Your task to perform on an android device: change timer sound Image 0: 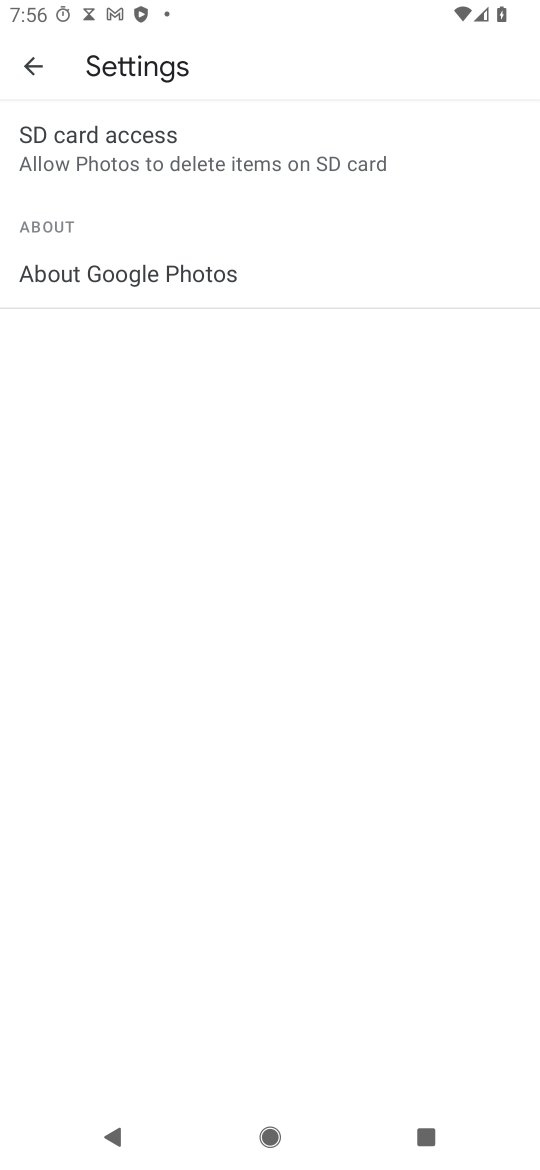
Step 0: press home button
Your task to perform on an android device: change timer sound Image 1: 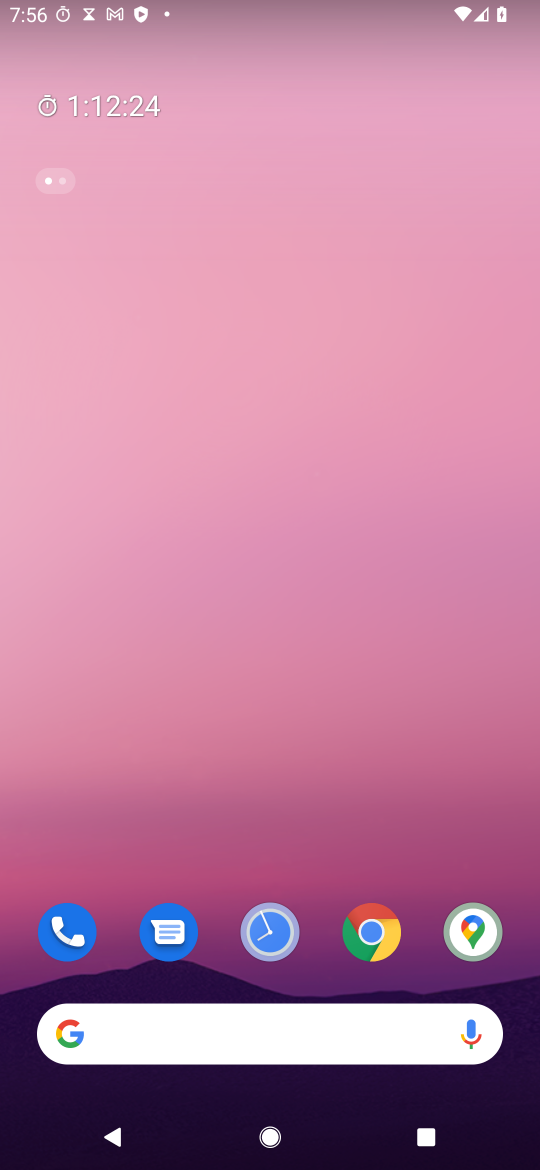
Step 1: drag from (379, 849) to (389, 146)
Your task to perform on an android device: change timer sound Image 2: 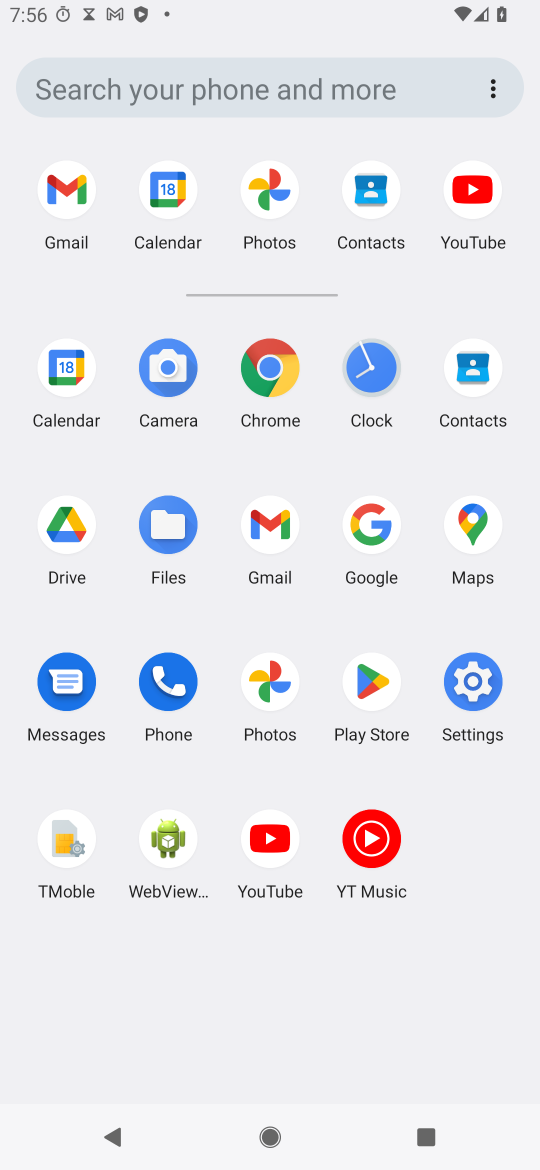
Step 2: click (465, 680)
Your task to perform on an android device: change timer sound Image 3: 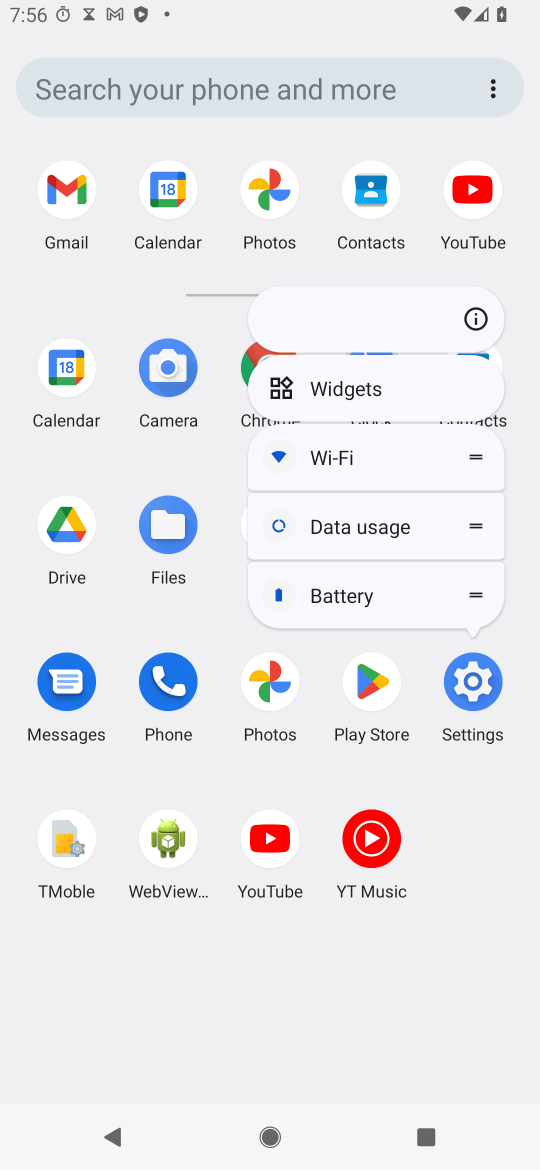
Step 3: click (479, 686)
Your task to perform on an android device: change timer sound Image 4: 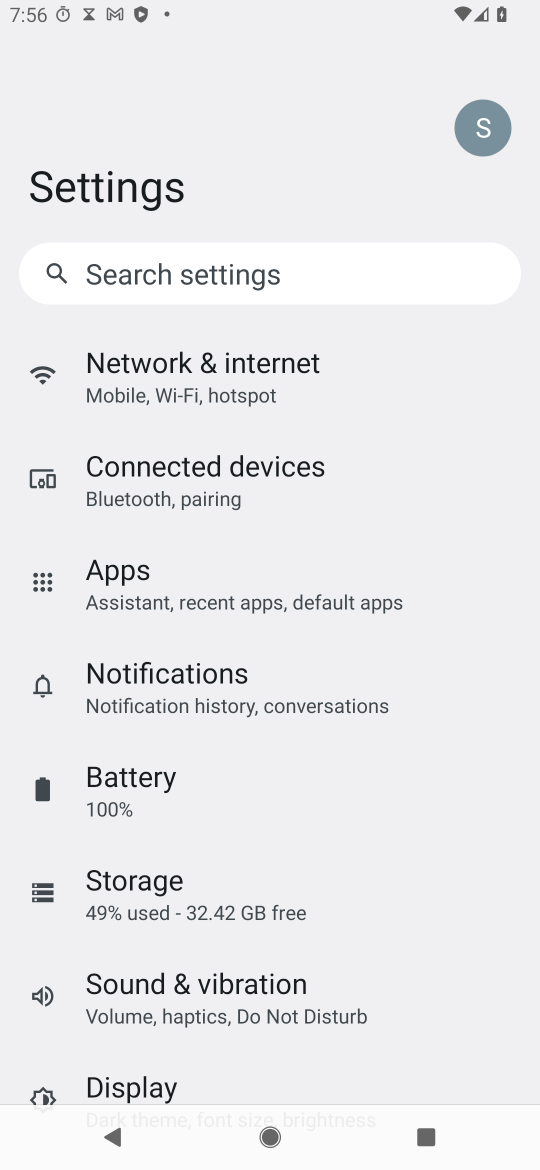
Step 4: drag from (392, 848) to (323, 320)
Your task to perform on an android device: change timer sound Image 5: 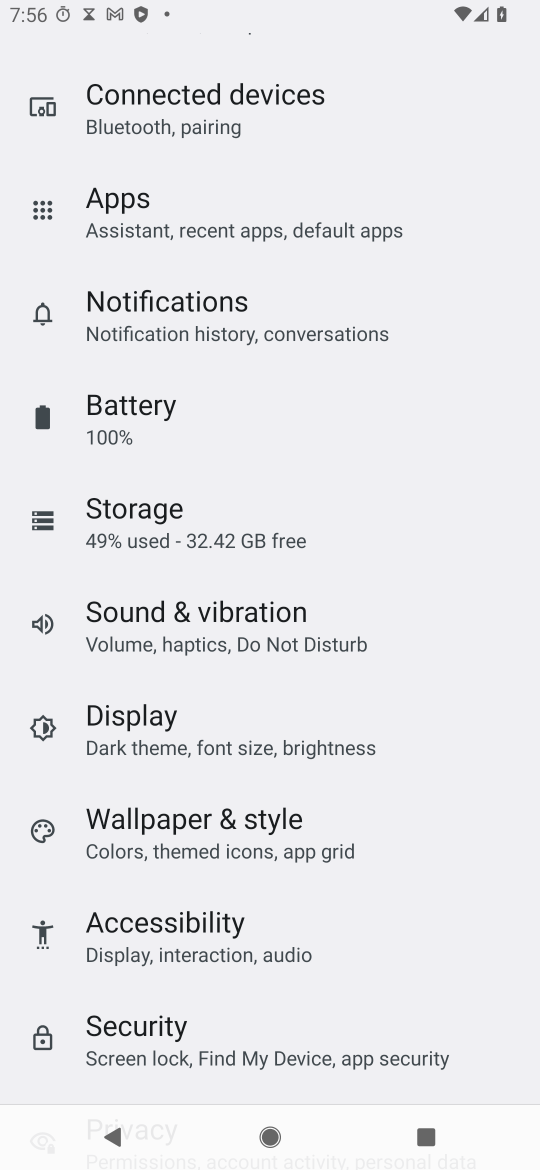
Step 5: click (237, 604)
Your task to perform on an android device: change timer sound Image 6: 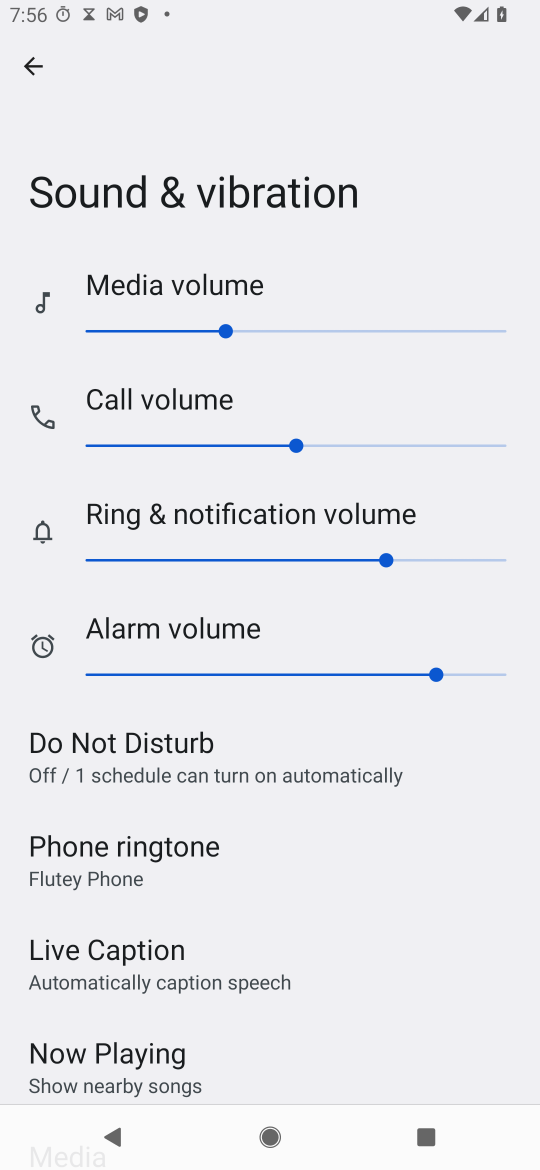
Step 6: task complete